Your task to perform on an android device: clear history in the chrome app Image 0: 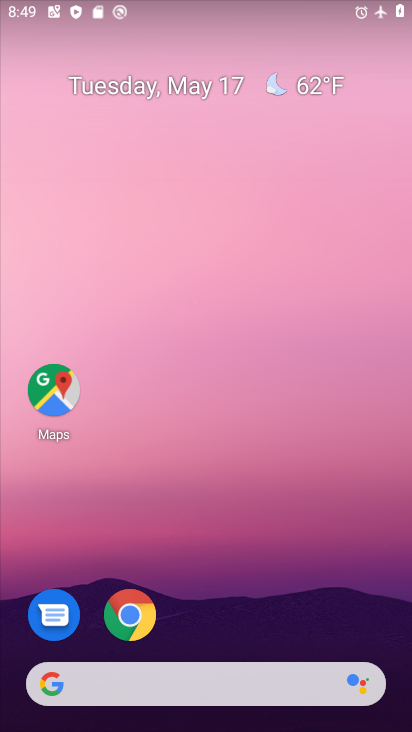
Step 0: click (142, 634)
Your task to perform on an android device: clear history in the chrome app Image 1: 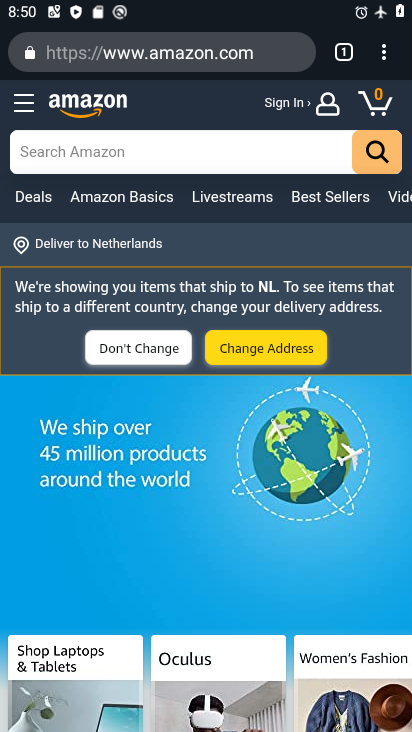
Step 1: click (388, 52)
Your task to perform on an android device: clear history in the chrome app Image 2: 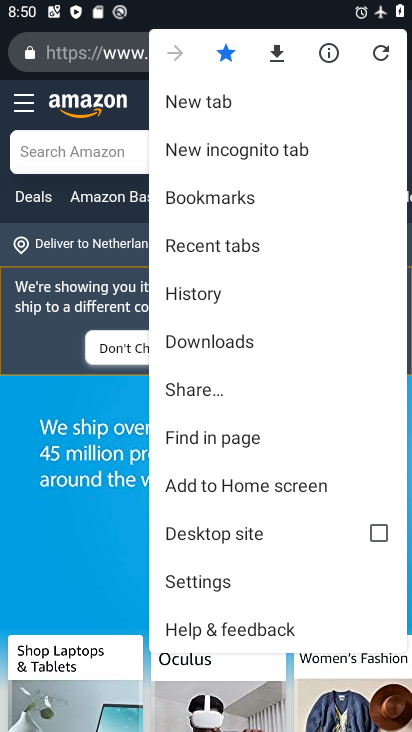
Step 2: click (195, 303)
Your task to perform on an android device: clear history in the chrome app Image 3: 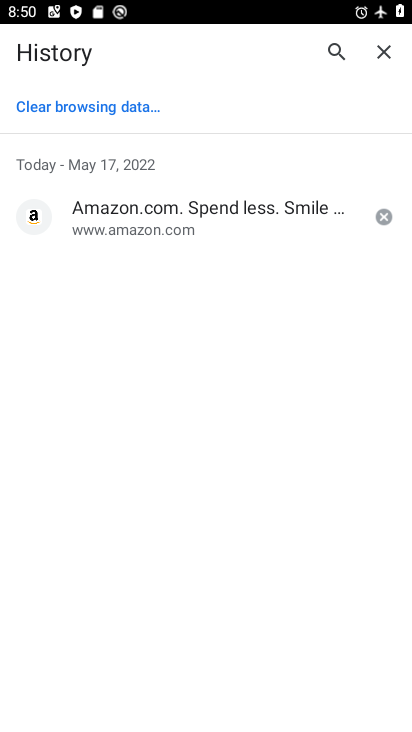
Step 3: click (134, 106)
Your task to perform on an android device: clear history in the chrome app Image 4: 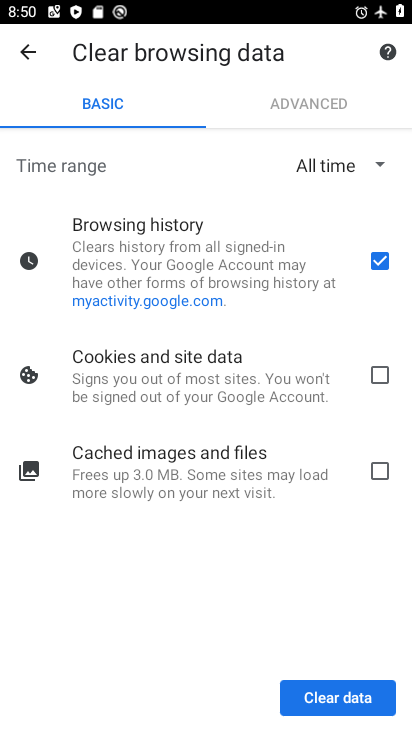
Step 4: click (315, 694)
Your task to perform on an android device: clear history in the chrome app Image 5: 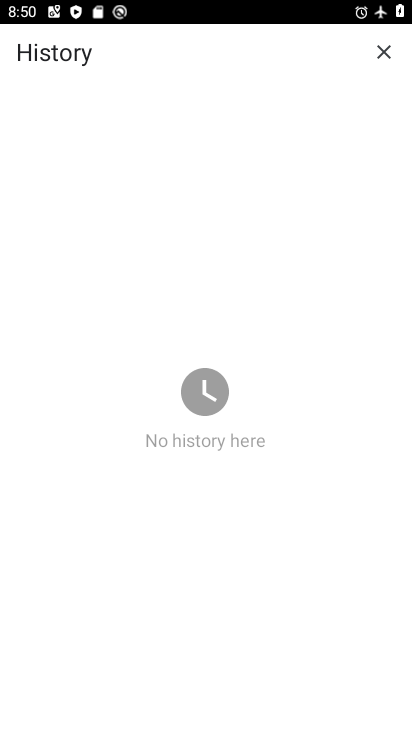
Step 5: task complete